Your task to perform on an android device: manage bookmarks in the chrome app Image 0: 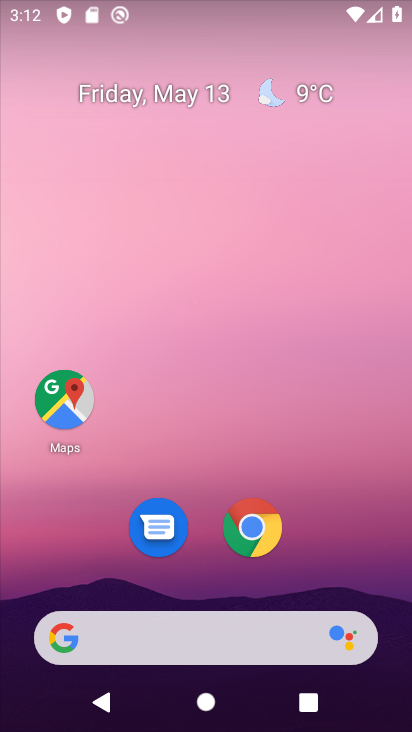
Step 0: drag from (312, 595) to (323, 299)
Your task to perform on an android device: manage bookmarks in the chrome app Image 1: 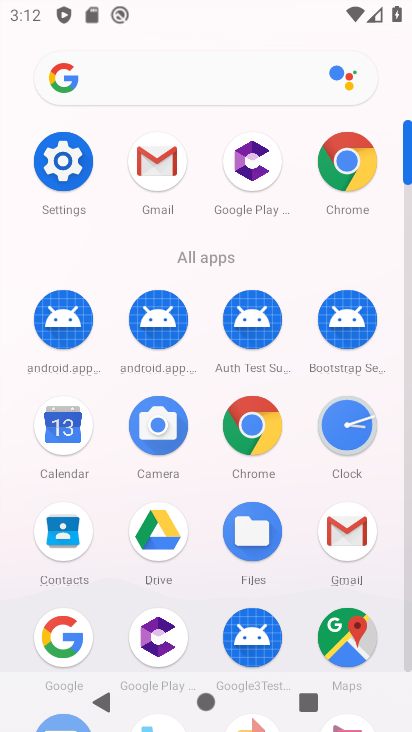
Step 1: click (330, 163)
Your task to perform on an android device: manage bookmarks in the chrome app Image 2: 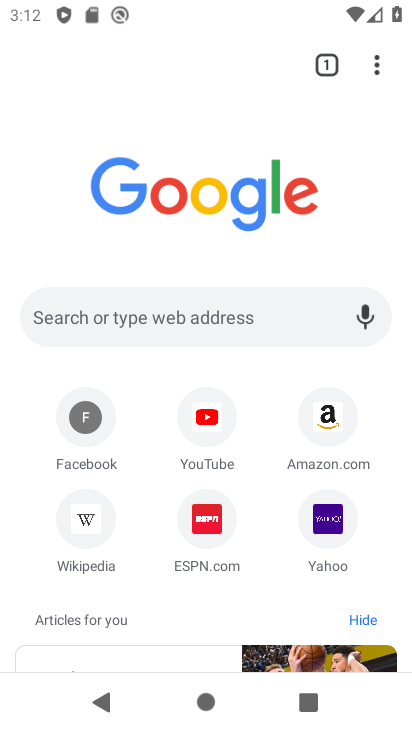
Step 2: click (391, 70)
Your task to perform on an android device: manage bookmarks in the chrome app Image 3: 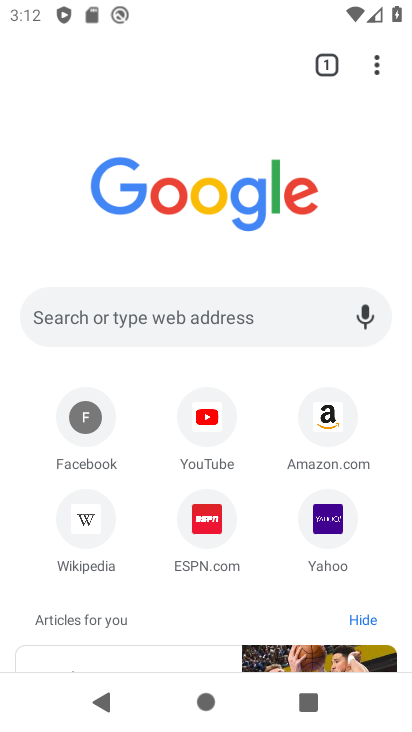
Step 3: click (362, 71)
Your task to perform on an android device: manage bookmarks in the chrome app Image 4: 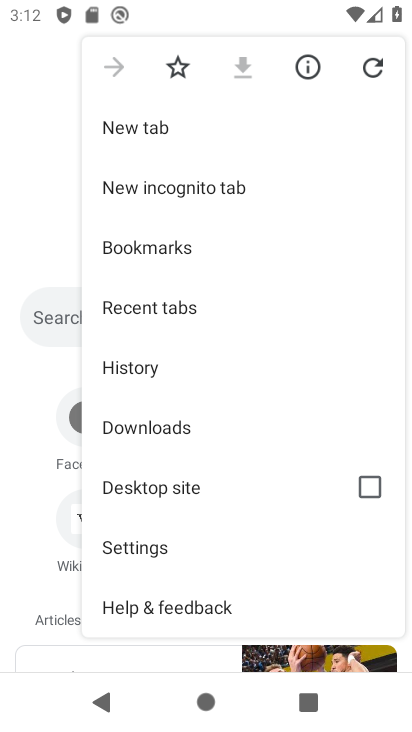
Step 4: click (213, 233)
Your task to perform on an android device: manage bookmarks in the chrome app Image 5: 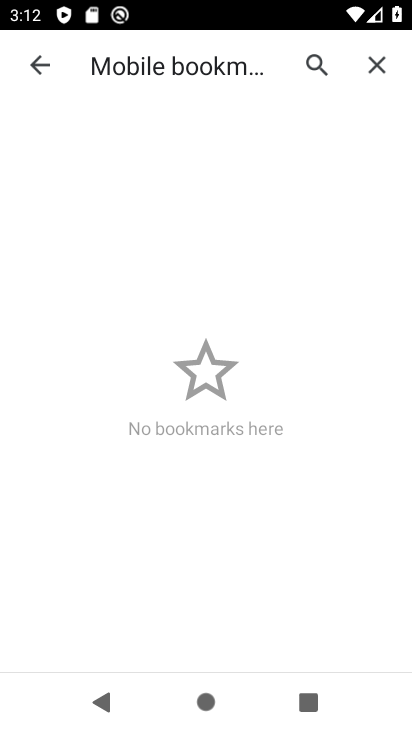
Step 5: task complete